Your task to perform on an android device: open chrome privacy settings Image 0: 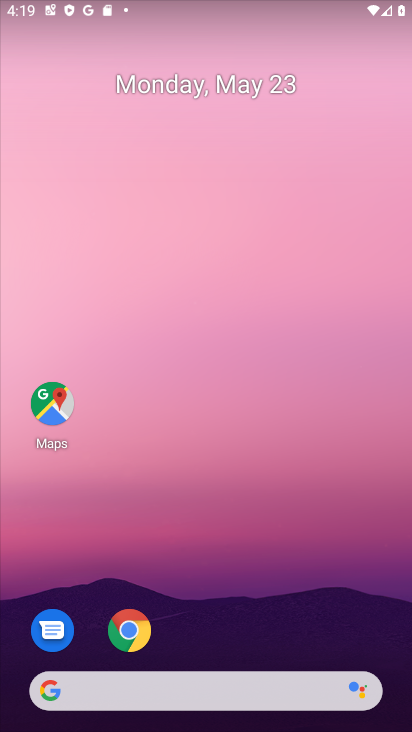
Step 0: drag from (213, 623) to (228, 29)
Your task to perform on an android device: open chrome privacy settings Image 1: 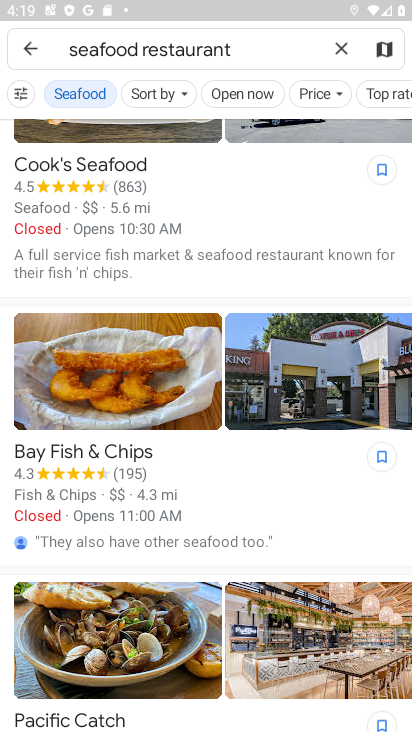
Step 1: press home button
Your task to perform on an android device: open chrome privacy settings Image 2: 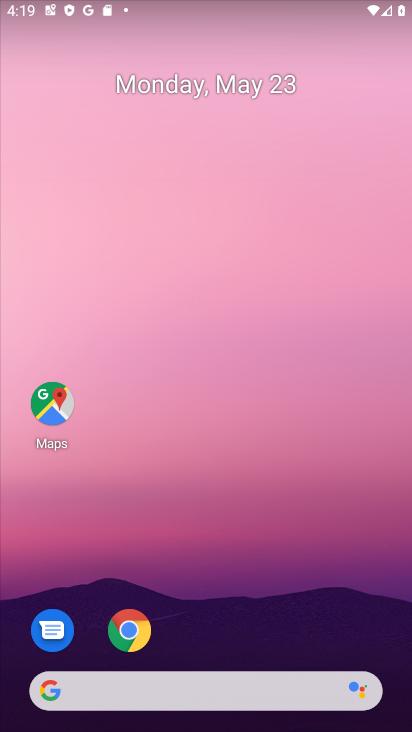
Step 2: drag from (203, 646) to (230, 20)
Your task to perform on an android device: open chrome privacy settings Image 3: 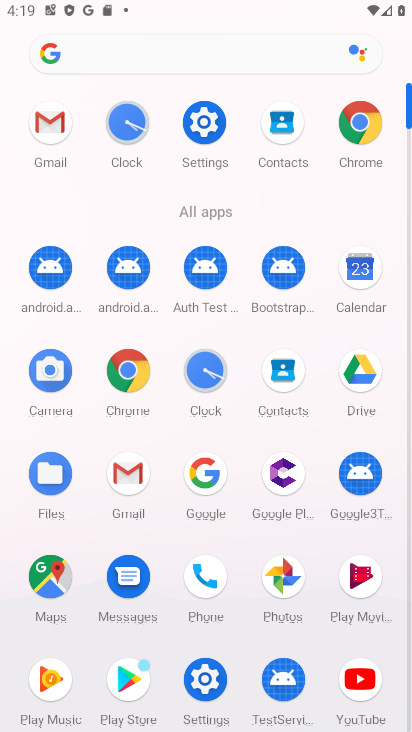
Step 3: click (356, 113)
Your task to perform on an android device: open chrome privacy settings Image 4: 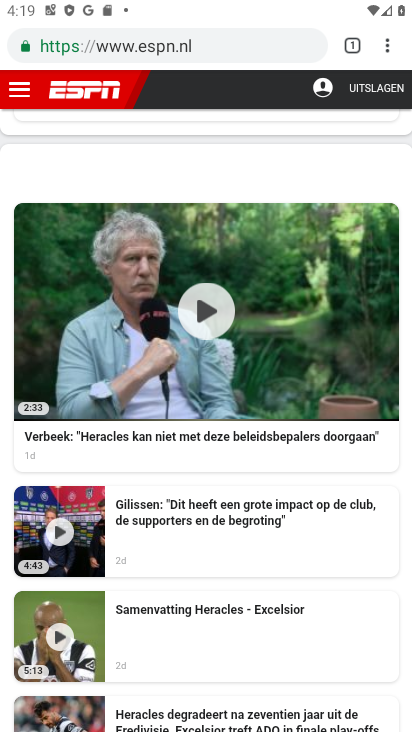
Step 4: task complete